Your task to perform on an android device: Open Google Chrome and open the bookmarks view Image 0: 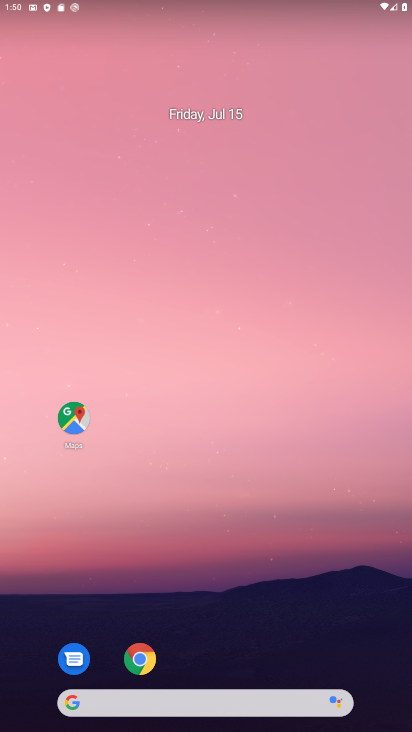
Step 0: drag from (183, 510) to (101, 357)
Your task to perform on an android device: Open Google Chrome and open the bookmarks view Image 1: 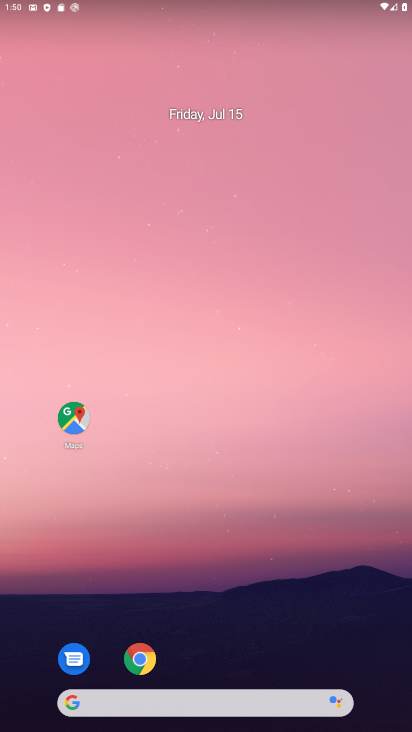
Step 1: drag from (194, 560) to (194, 186)
Your task to perform on an android device: Open Google Chrome and open the bookmarks view Image 2: 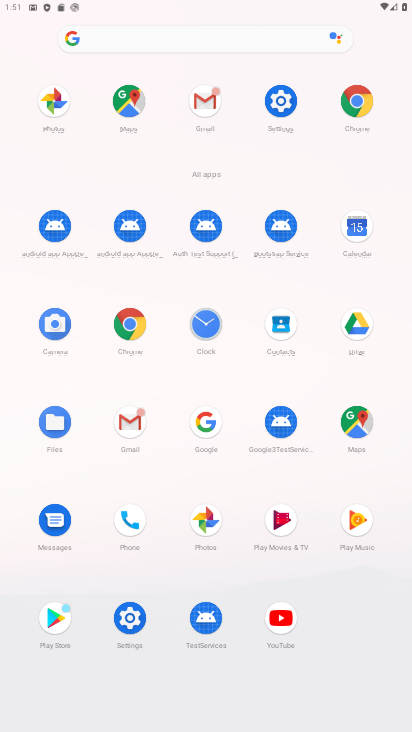
Step 2: click (121, 332)
Your task to perform on an android device: Open Google Chrome and open the bookmarks view Image 3: 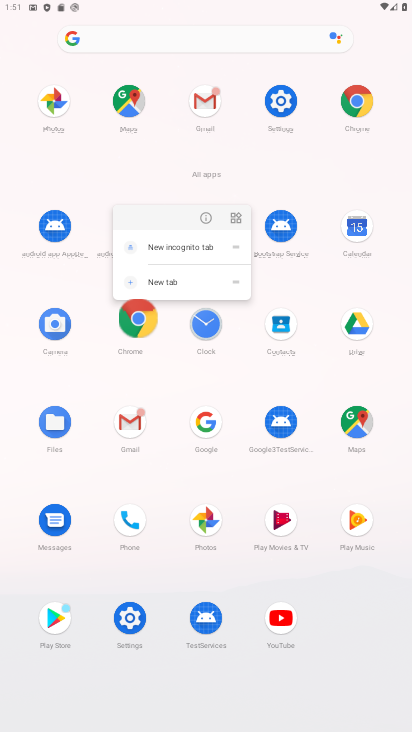
Step 3: click (130, 326)
Your task to perform on an android device: Open Google Chrome and open the bookmarks view Image 4: 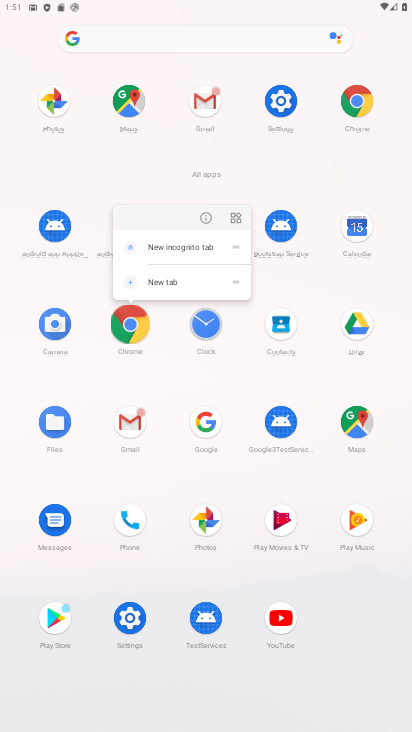
Step 4: click (135, 323)
Your task to perform on an android device: Open Google Chrome and open the bookmarks view Image 5: 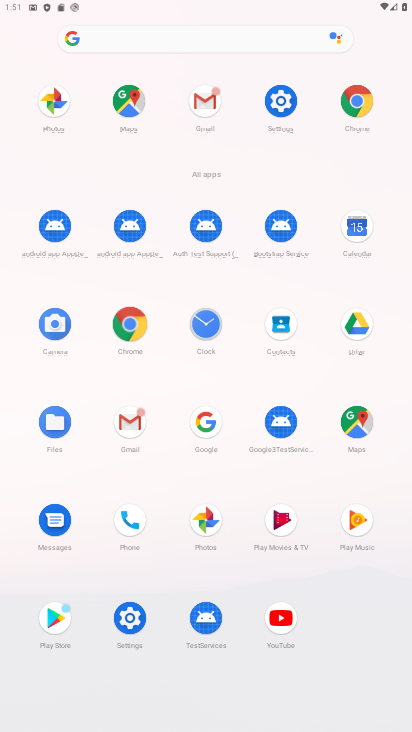
Step 5: click (135, 323)
Your task to perform on an android device: Open Google Chrome and open the bookmarks view Image 6: 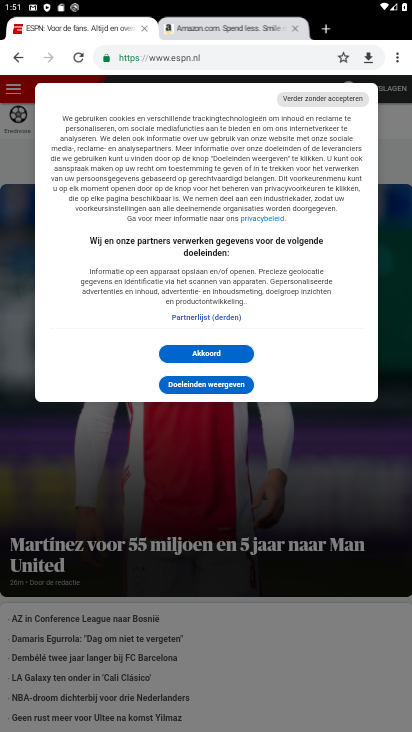
Step 6: click (398, 57)
Your task to perform on an android device: Open Google Chrome and open the bookmarks view Image 7: 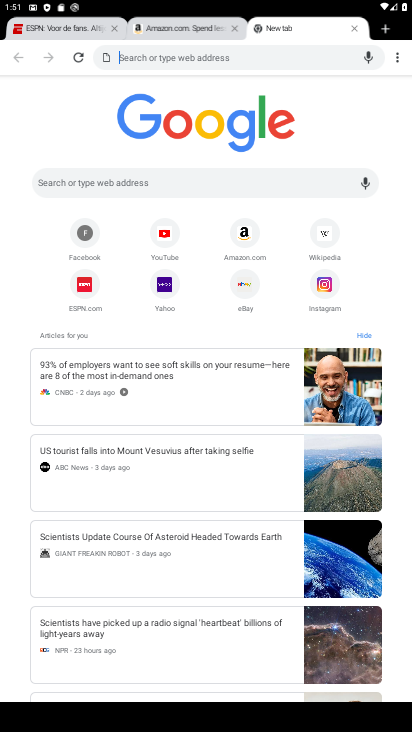
Step 7: drag from (401, 55) to (289, 120)
Your task to perform on an android device: Open Google Chrome and open the bookmarks view Image 8: 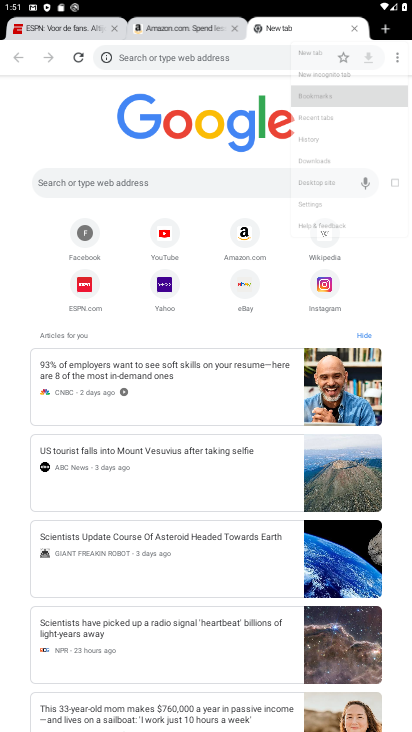
Step 8: click (289, 120)
Your task to perform on an android device: Open Google Chrome and open the bookmarks view Image 9: 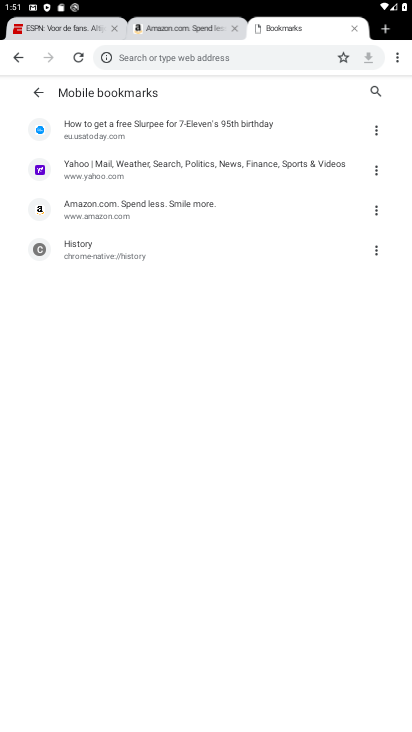
Step 9: task complete